Your task to perform on an android device: See recent photos Image 0: 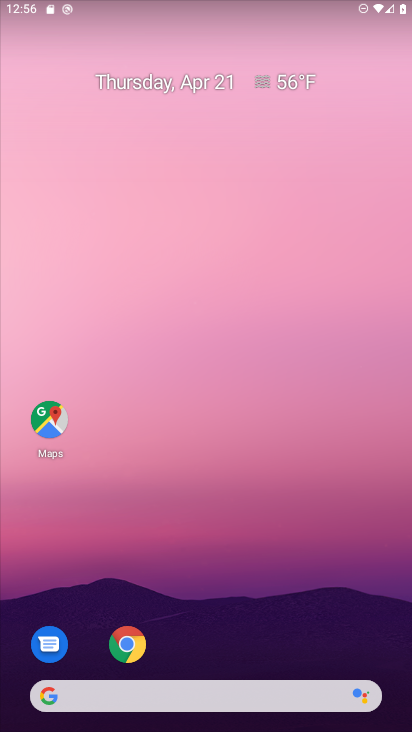
Step 0: drag from (171, 280) to (216, 118)
Your task to perform on an android device: See recent photos Image 1: 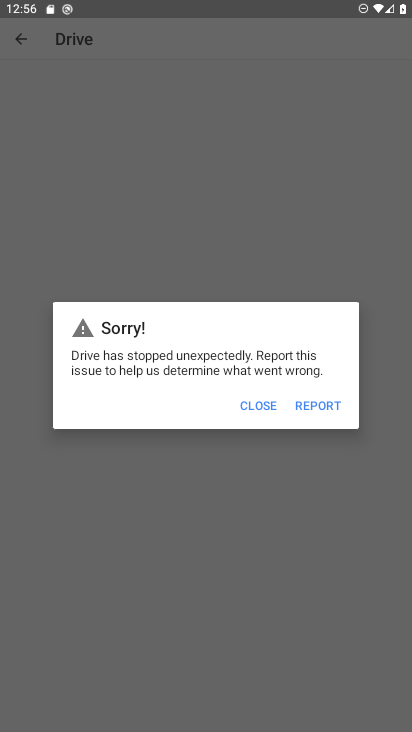
Step 1: press home button
Your task to perform on an android device: See recent photos Image 2: 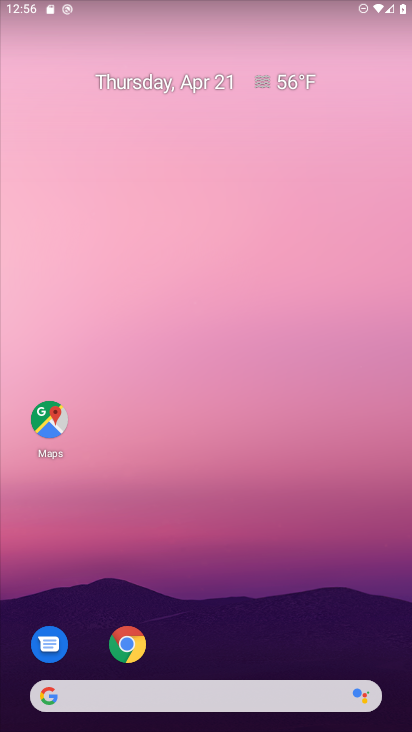
Step 2: drag from (199, 653) to (271, 144)
Your task to perform on an android device: See recent photos Image 3: 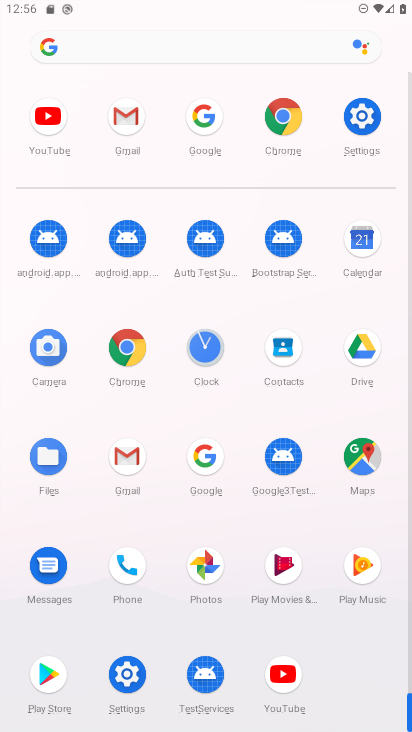
Step 3: click (127, 126)
Your task to perform on an android device: See recent photos Image 4: 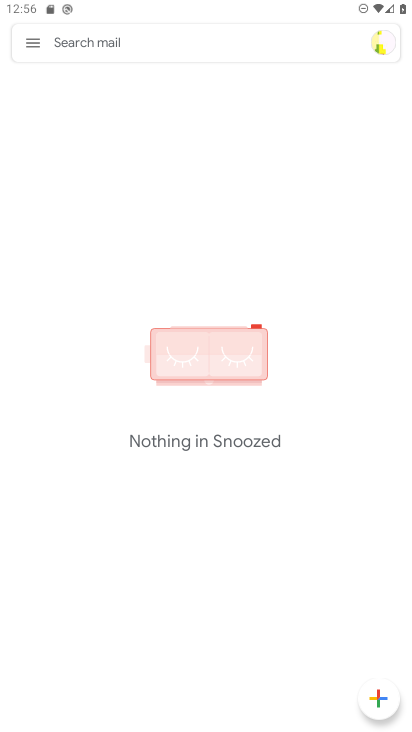
Step 4: press home button
Your task to perform on an android device: See recent photos Image 5: 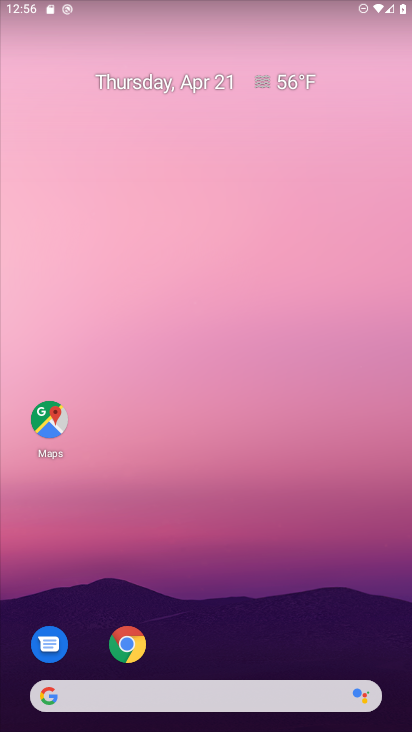
Step 5: drag from (153, 581) to (205, 196)
Your task to perform on an android device: See recent photos Image 6: 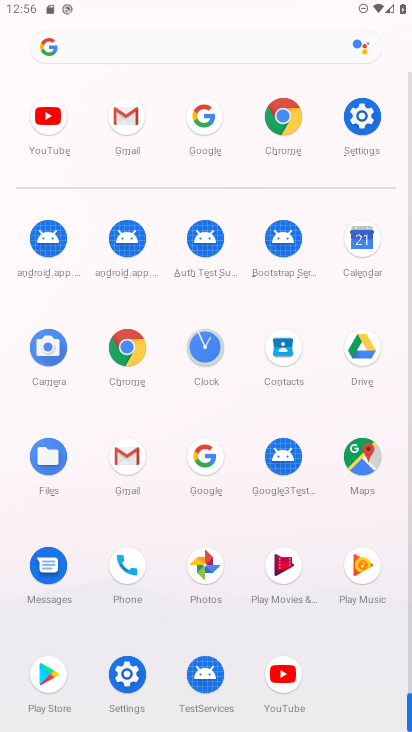
Step 6: click (198, 556)
Your task to perform on an android device: See recent photos Image 7: 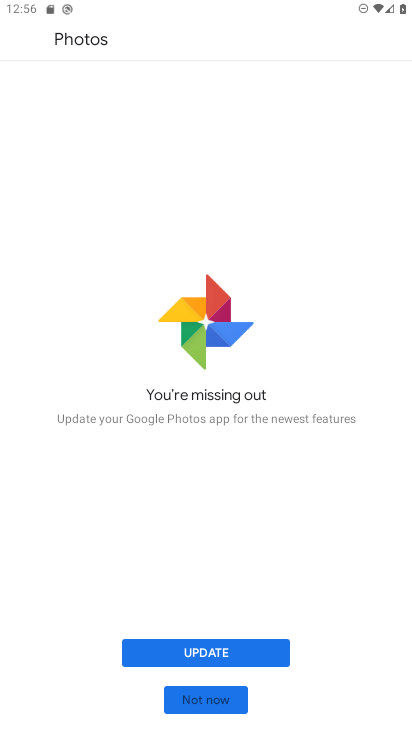
Step 7: click (214, 653)
Your task to perform on an android device: See recent photos Image 8: 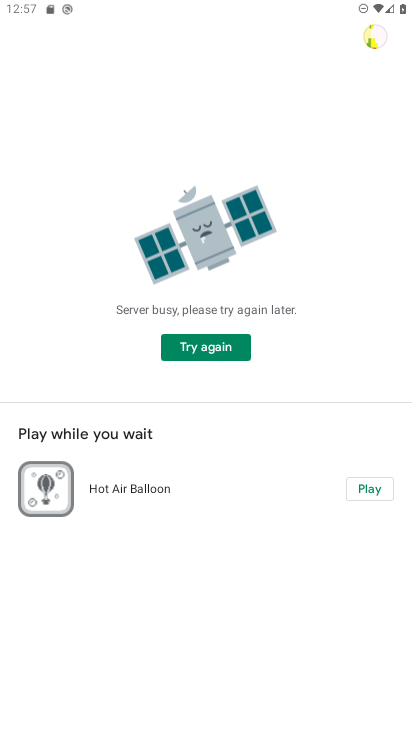
Step 8: task complete